Your task to perform on an android device: open the mobile data screen to see how much data has been used Image 0: 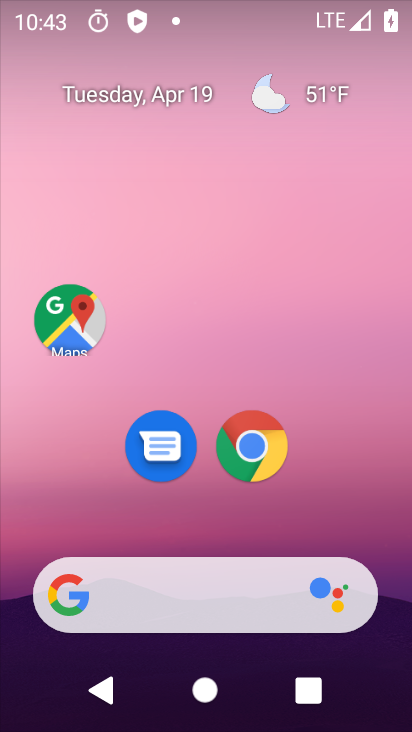
Step 0: drag from (381, 264) to (363, 44)
Your task to perform on an android device: open the mobile data screen to see how much data has been used Image 1: 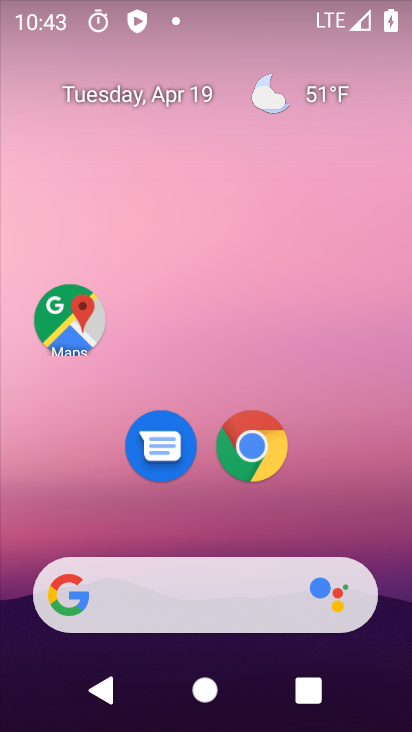
Step 1: drag from (375, 511) to (363, 151)
Your task to perform on an android device: open the mobile data screen to see how much data has been used Image 2: 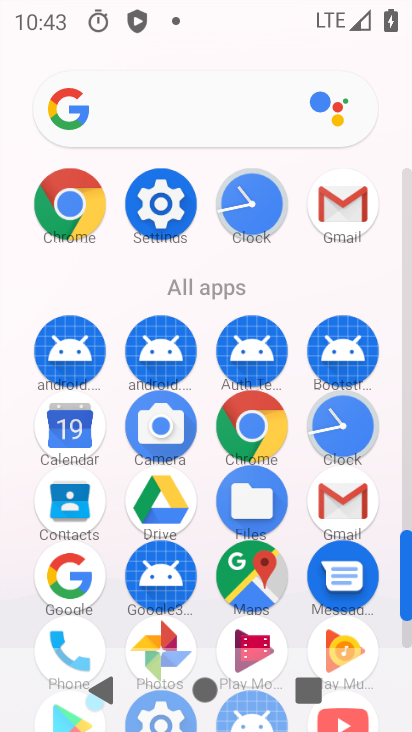
Step 2: click (142, 193)
Your task to perform on an android device: open the mobile data screen to see how much data has been used Image 3: 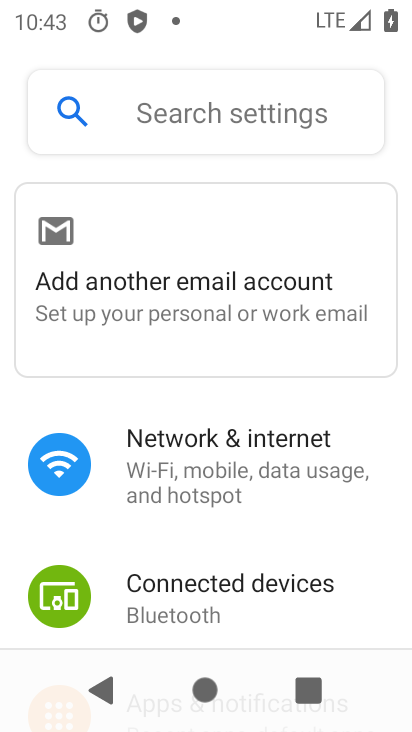
Step 3: click (179, 447)
Your task to perform on an android device: open the mobile data screen to see how much data has been used Image 4: 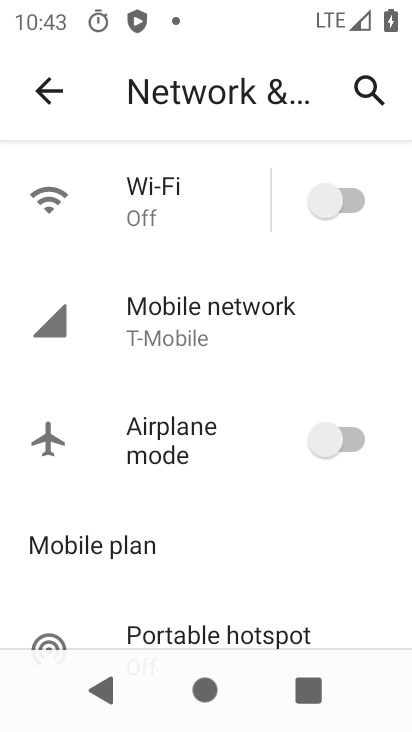
Step 4: drag from (224, 399) to (223, 294)
Your task to perform on an android device: open the mobile data screen to see how much data has been used Image 5: 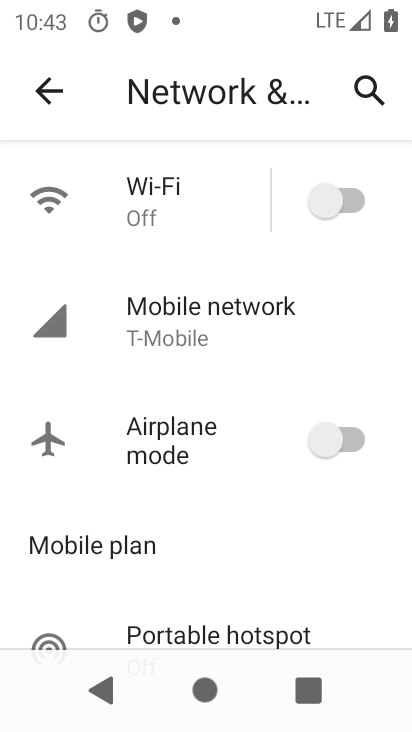
Step 5: click (166, 323)
Your task to perform on an android device: open the mobile data screen to see how much data has been used Image 6: 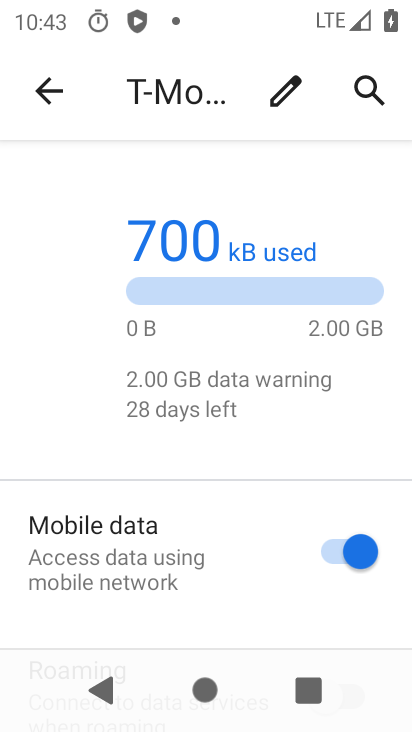
Step 6: task complete